Your task to perform on an android device: Open Google Maps and go to "Timeline" Image 0: 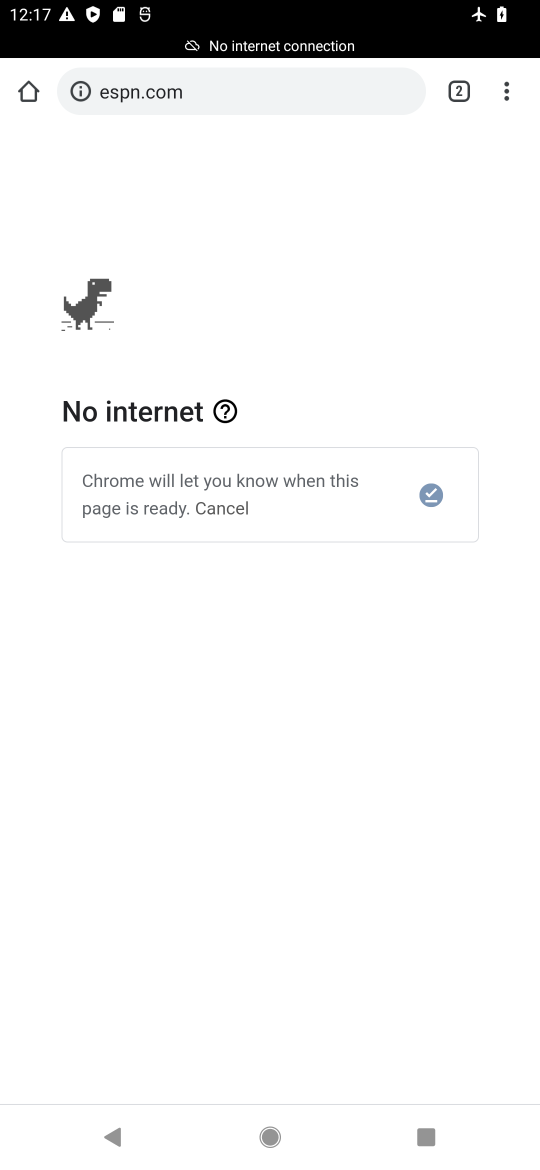
Step 0: press home button
Your task to perform on an android device: Open Google Maps and go to "Timeline" Image 1: 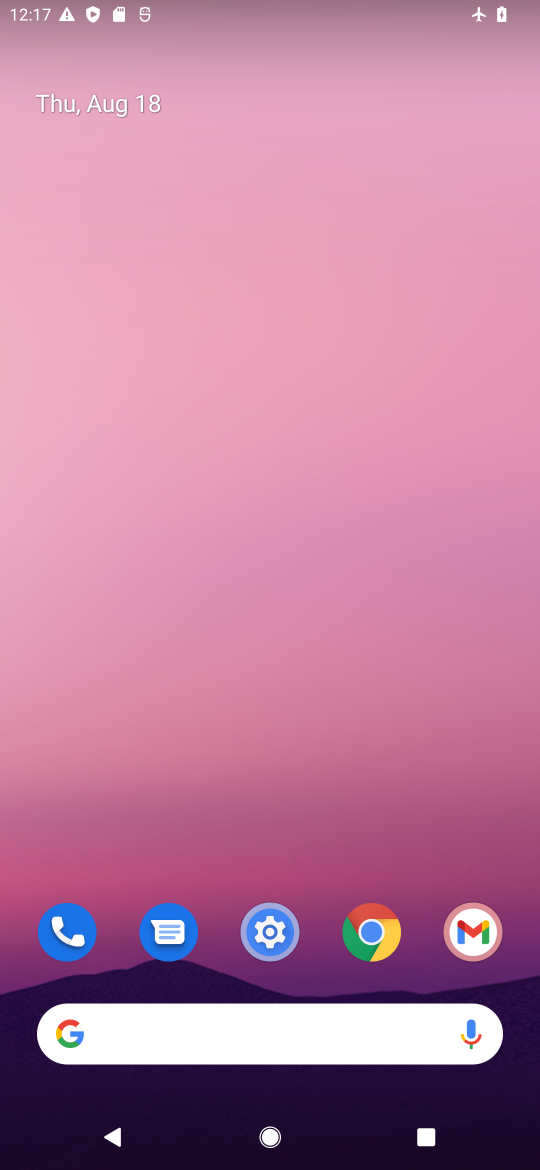
Step 1: drag from (235, 846) to (219, 224)
Your task to perform on an android device: Open Google Maps and go to "Timeline" Image 2: 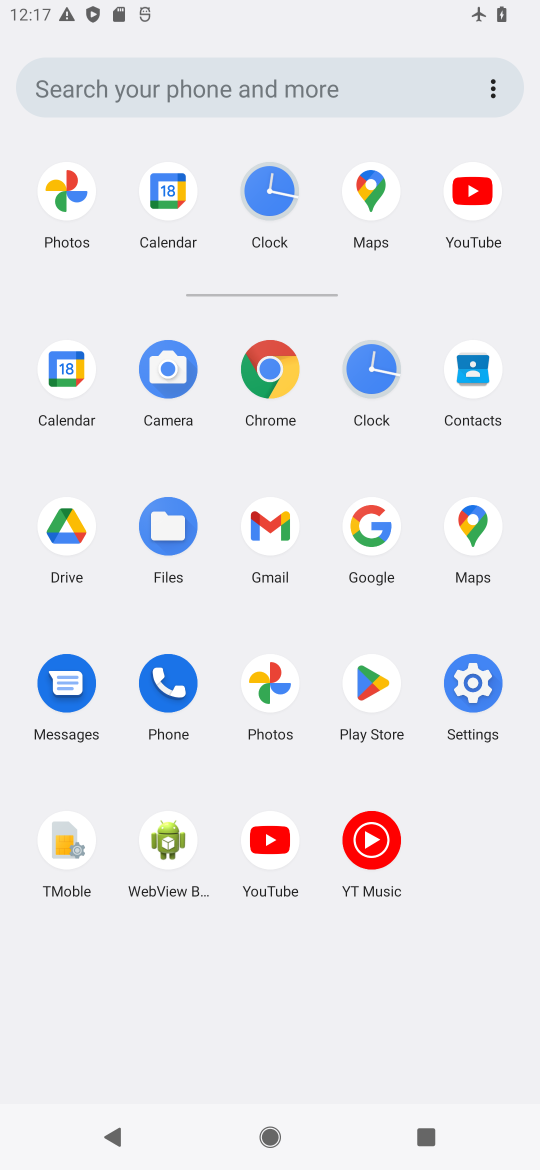
Step 2: click (363, 170)
Your task to perform on an android device: Open Google Maps and go to "Timeline" Image 3: 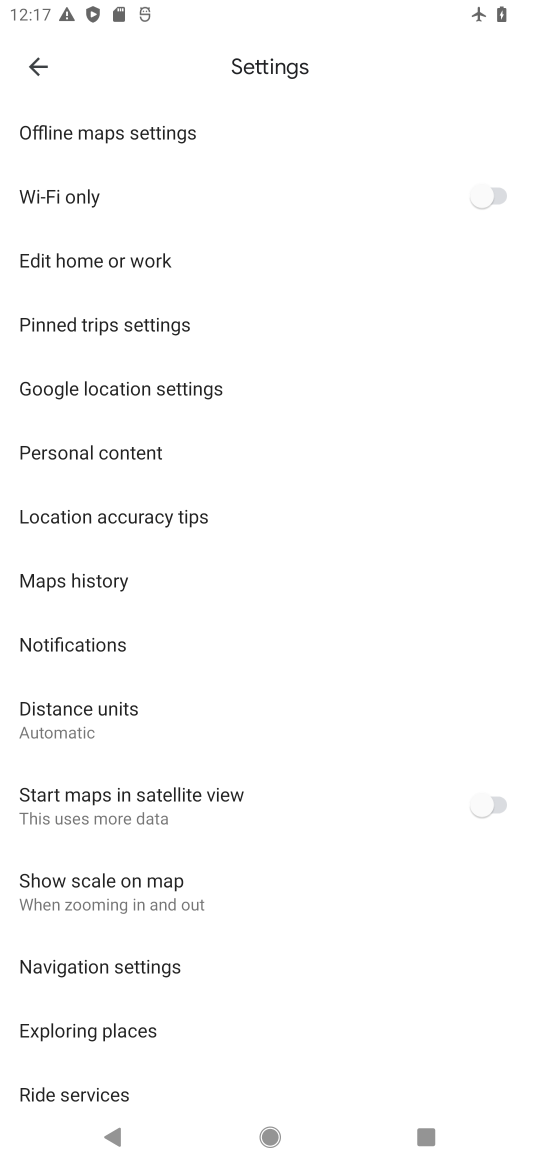
Step 3: press back button
Your task to perform on an android device: Open Google Maps and go to "Timeline" Image 4: 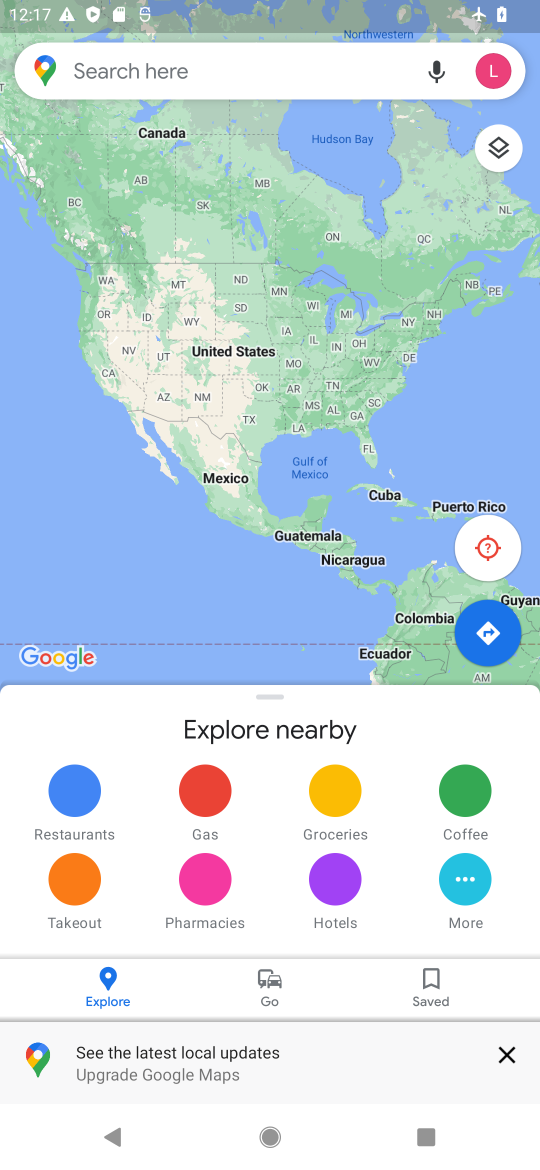
Step 4: click (503, 70)
Your task to perform on an android device: Open Google Maps and go to "Timeline" Image 5: 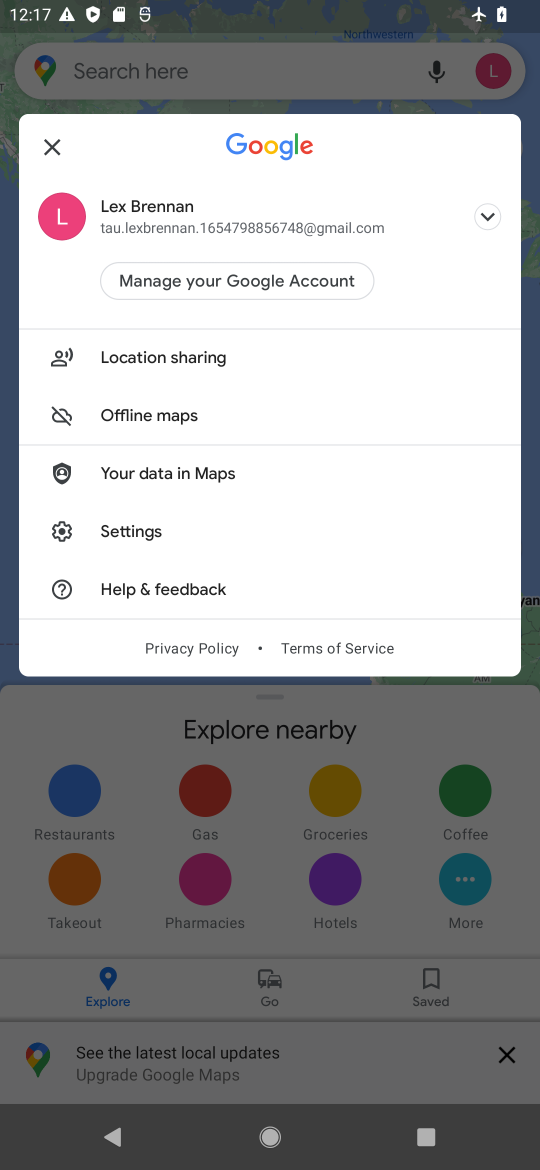
Step 5: task complete